Your task to perform on an android device: Open Chrome and go to settings Image 0: 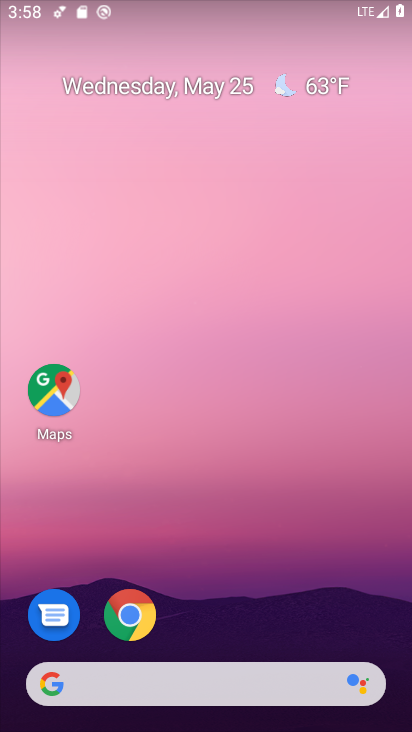
Step 0: click (130, 618)
Your task to perform on an android device: Open Chrome and go to settings Image 1: 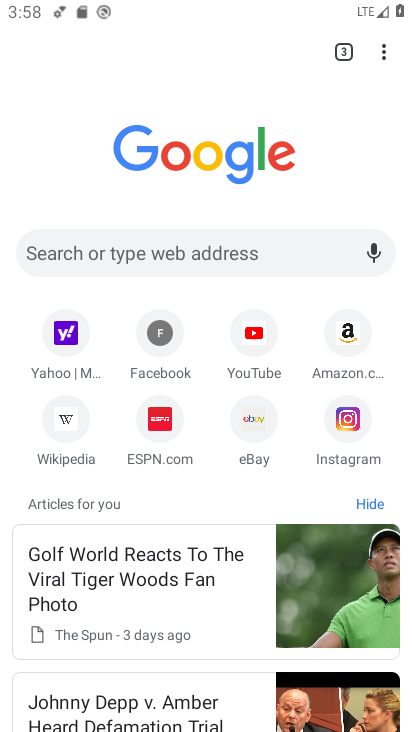
Step 1: click (377, 53)
Your task to perform on an android device: Open Chrome and go to settings Image 2: 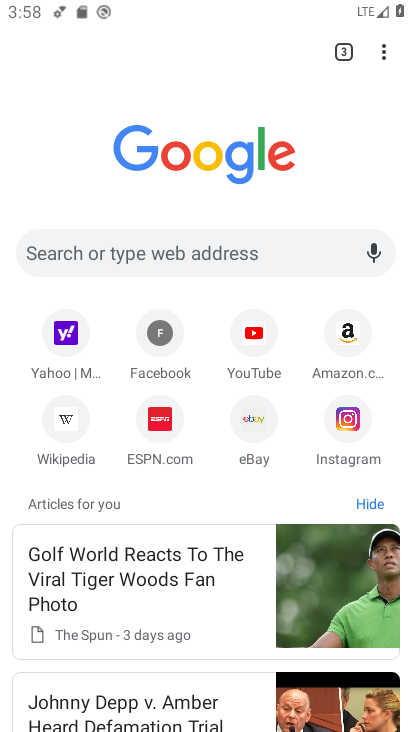
Step 2: click (383, 46)
Your task to perform on an android device: Open Chrome and go to settings Image 3: 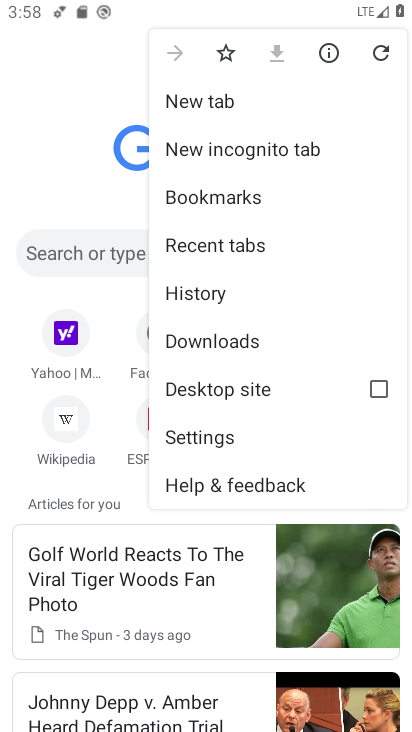
Step 3: click (239, 439)
Your task to perform on an android device: Open Chrome and go to settings Image 4: 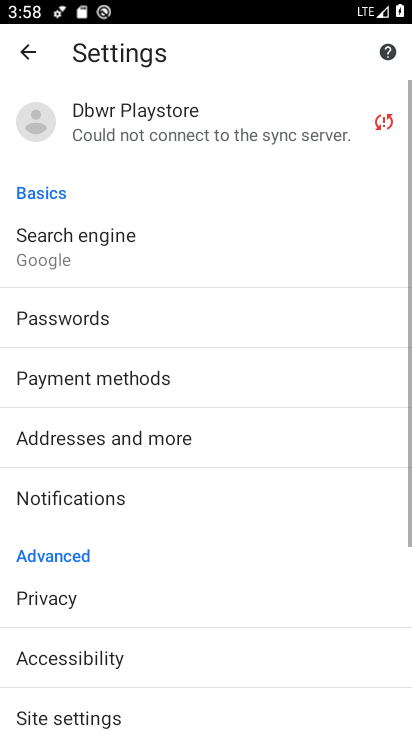
Step 4: task complete